Your task to perform on an android device: Open wifi settings Image 0: 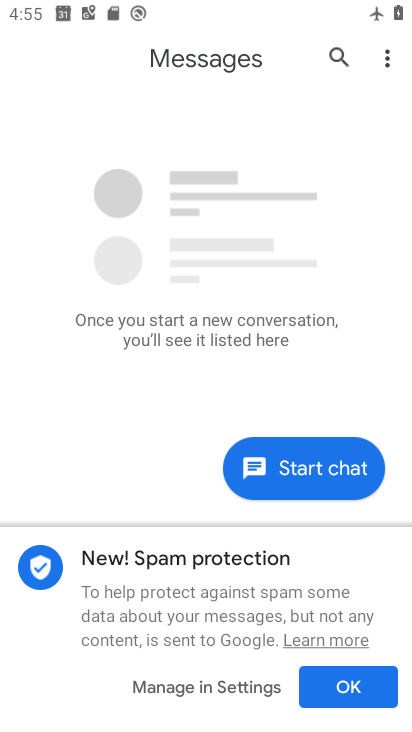
Step 0: press home button
Your task to perform on an android device: Open wifi settings Image 1: 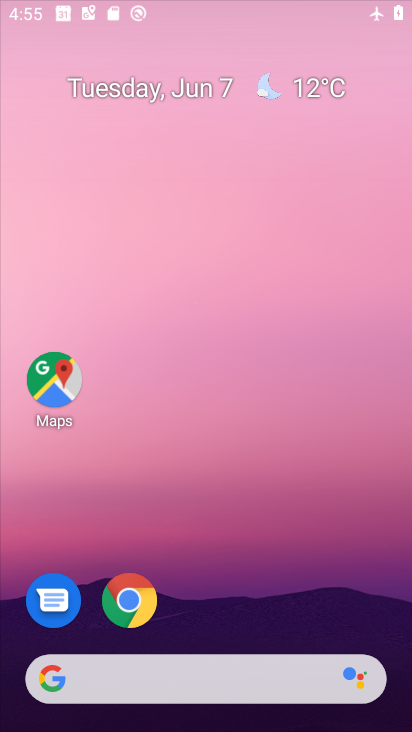
Step 1: drag from (319, 276) to (292, 106)
Your task to perform on an android device: Open wifi settings Image 2: 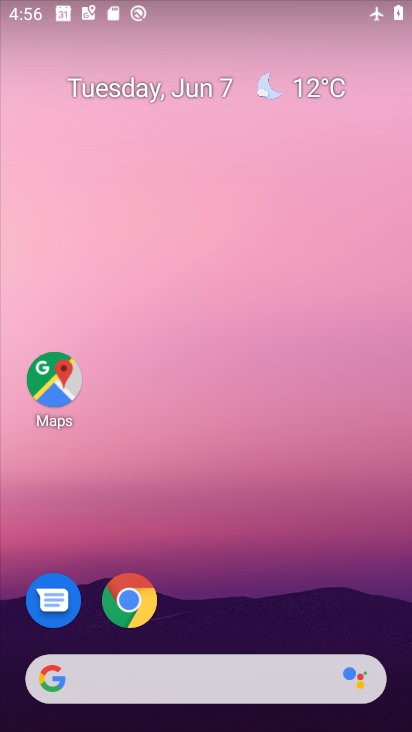
Step 2: drag from (283, 627) to (276, 191)
Your task to perform on an android device: Open wifi settings Image 3: 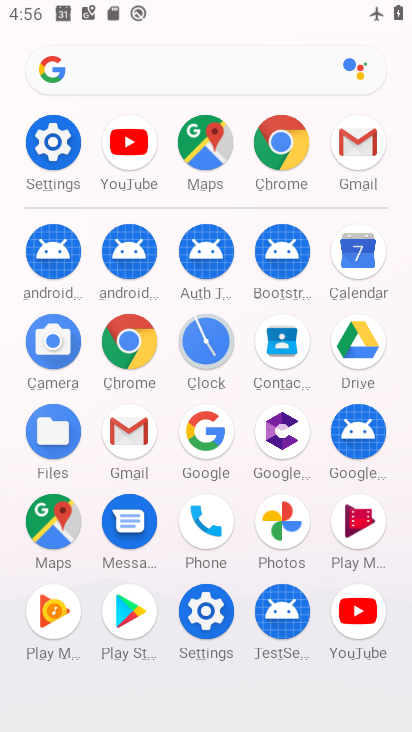
Step 3: click (66, 135)
Your task to perform on an android device: Open wifi settings Image 4: 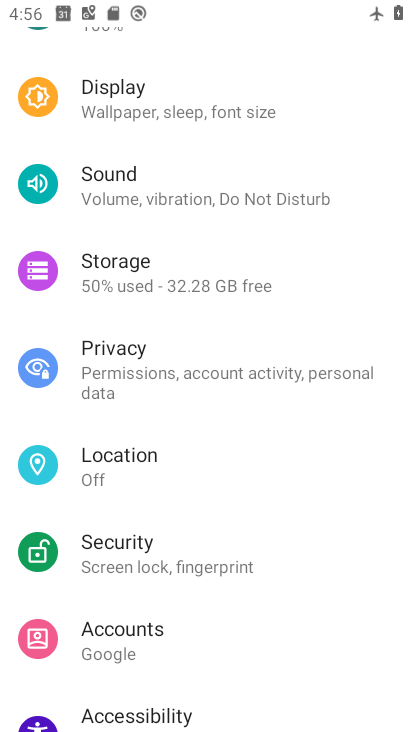
Step 4: drag from (263, 159) to (240, 603)
Your task to perform on an android device: Open wifi settings Image 5: 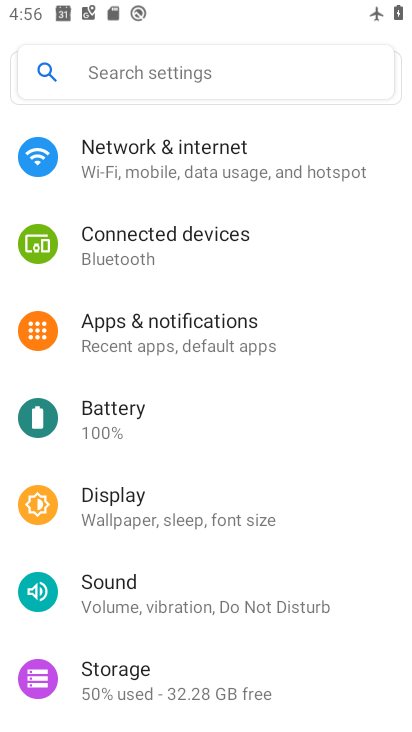
Step 5: drag from (214, 185) to (210, 523)
Your task to perform on an android device: Open wifi settings Image 6: 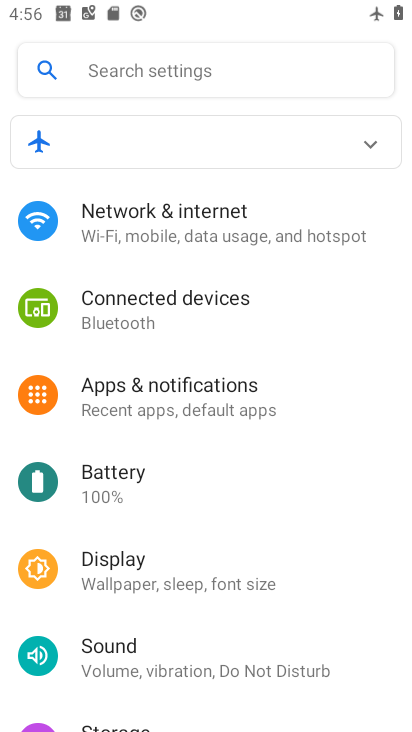
Step 6: click (197, 226)
Your task to perform on an android device: Open wifi settings Image 7: 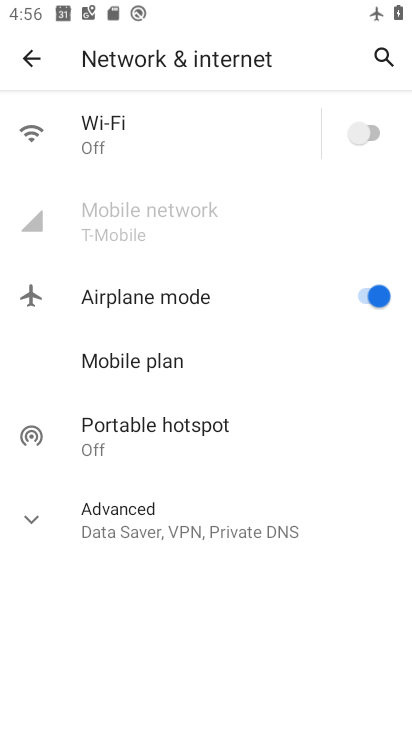
Step 7: click (239, 114)
Your task to perform on an android device: Open wifi settings Image 8: 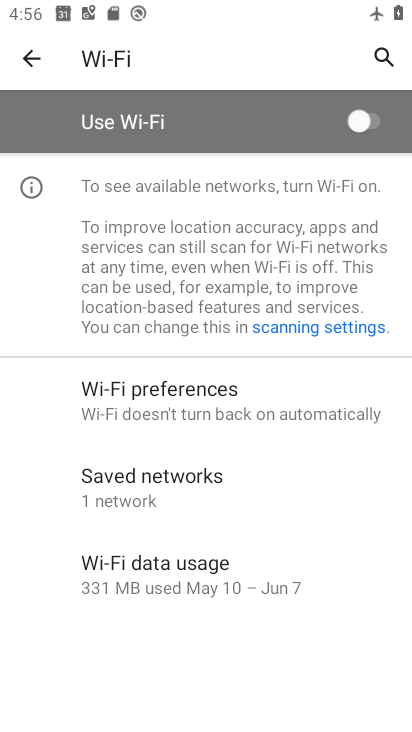
Step 8: click (371, 124)
Your task to perform on an android device: Open wifi settings Image 9: 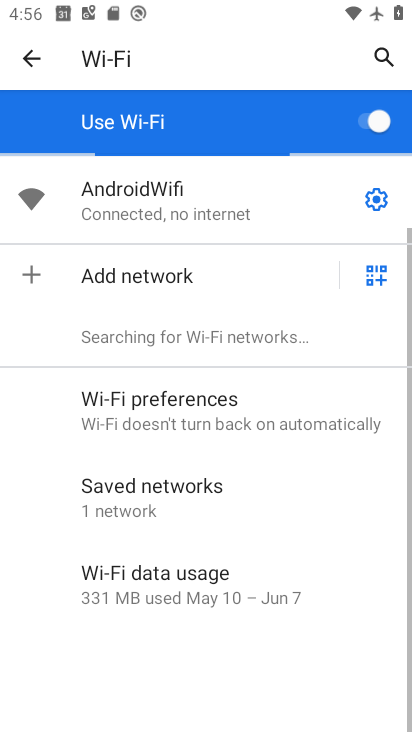
Step 9: click (374, 200)
Your task to perform on an android device: Open wifi settings Image 10: 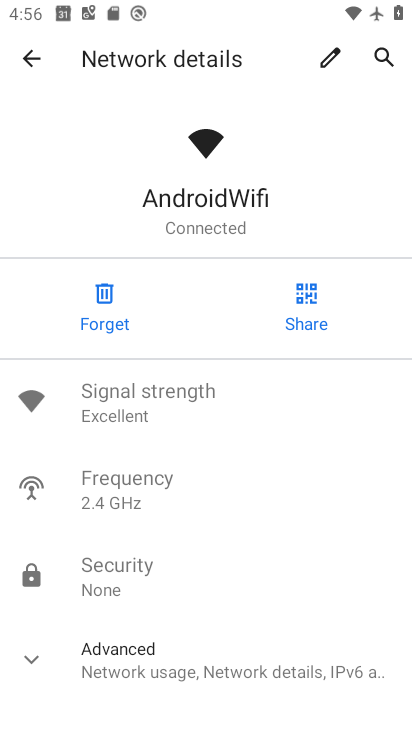
Step 10: task complete